Your task to perform on an android device: Open CNN.com Image 0: 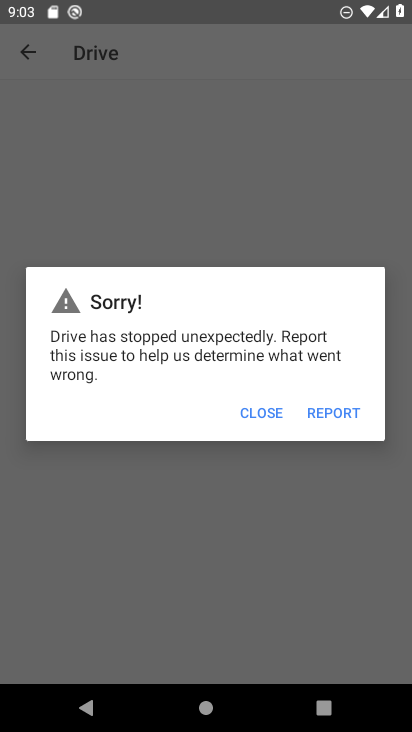
Step 0: drag from (278, 636) to (342, 190)
Your task to perform on an android device: Open CNN.com Image 1: 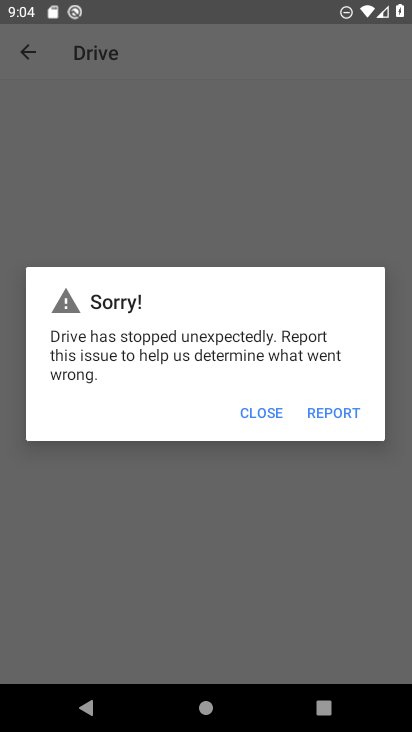
Step 1: drag from (256, 608) to (256, 410)
Your task to perform on an android device: Open CNN.com Image 2: 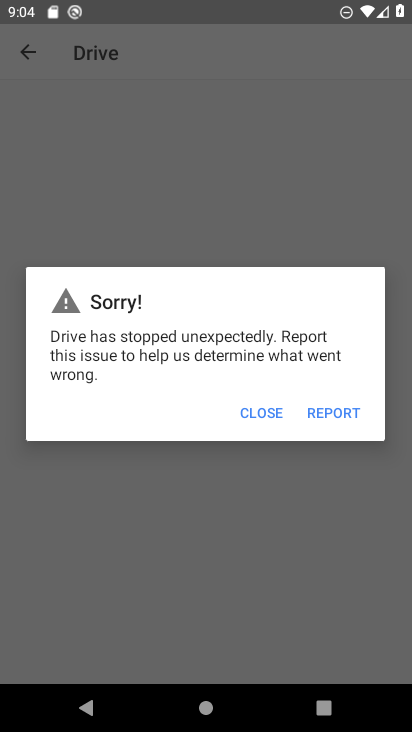
Step 2: click (279, 551)
Your task to perform on an android device: Open CNN.com Image 3: 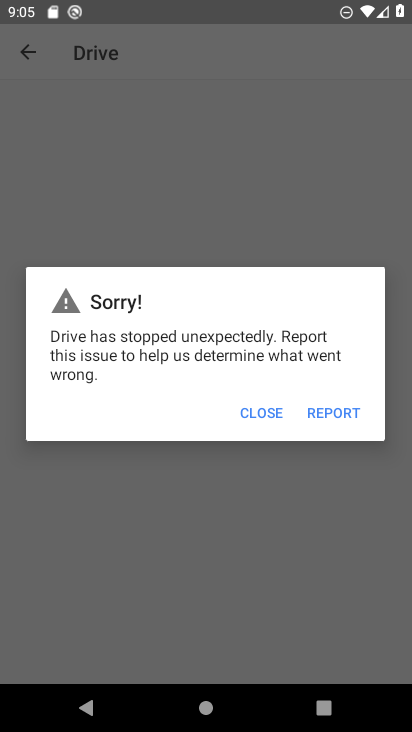
Step 3: click (235, 539)
Your task to perform on an android device: Open CNN.com Image 4: 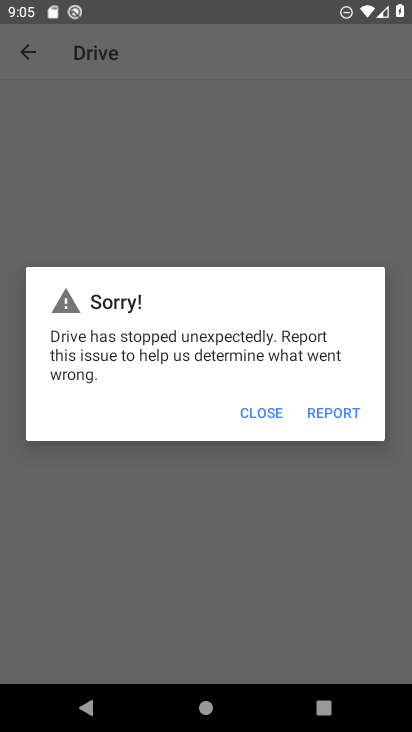
Step 4: press home button
Your task to perform on an android device: Open CNN.com Image 5: 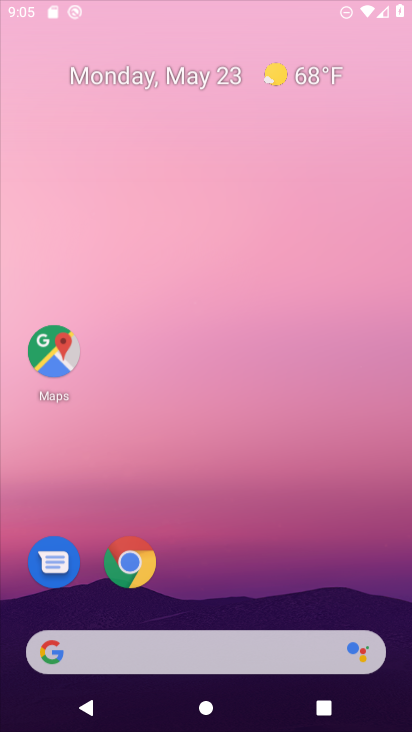
Step 5: drag from (161, 628) to (291, 0)
Your task to perform on an android device: Open CNN.com Image 6: 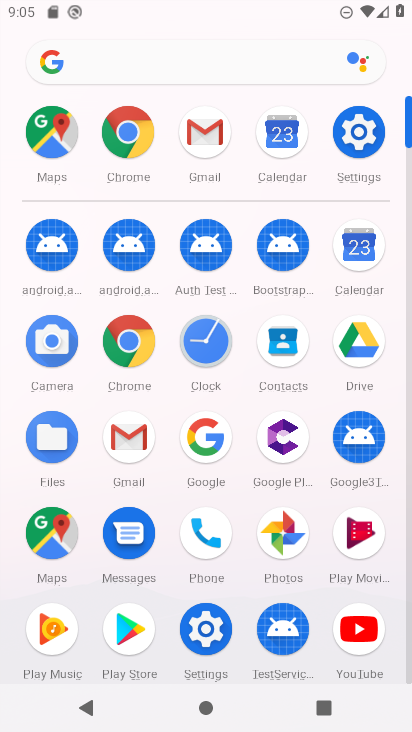
Step 6: click (152, 59)
Your task to perform on an android device: Open CNN.com Image 7: 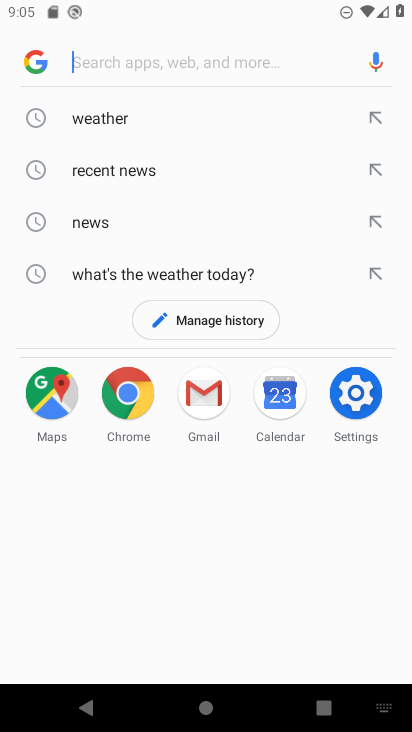
Step 7: type "cnn"
Your task to perform on an android device: Open CNN.com Image 8: 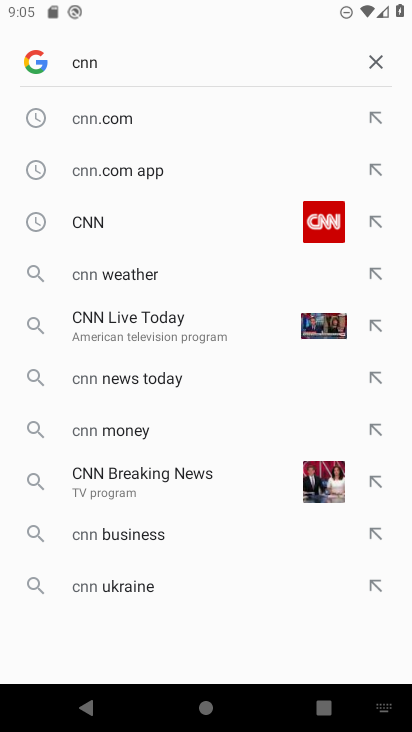
Step 8: click (215, 116)
Your task to perform on an android device: Open CNN.com Image 9: 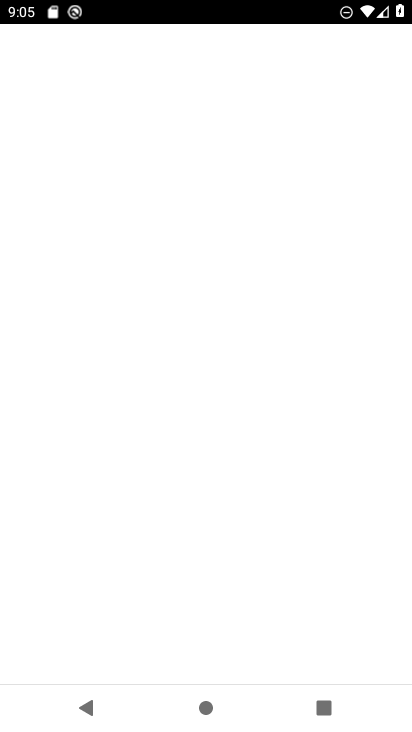
Step 9: task complete